Your task to perform on an android device: Open Google Chrome Image 0: 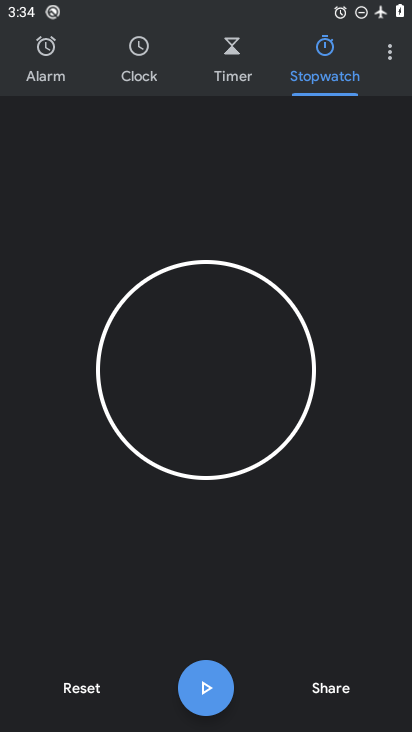
Step 0: press home button
Your task to perform on an android device: Open Google Chrome Image 1: 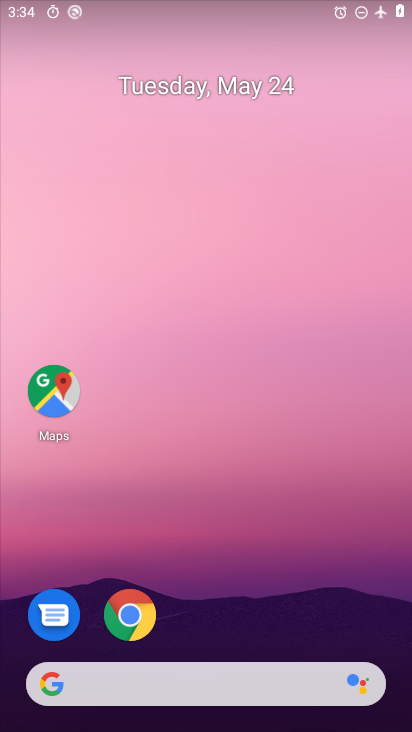
Step 1: click (146, 619)
Your task to perform on an android device: Open Google Chrome Image 2: 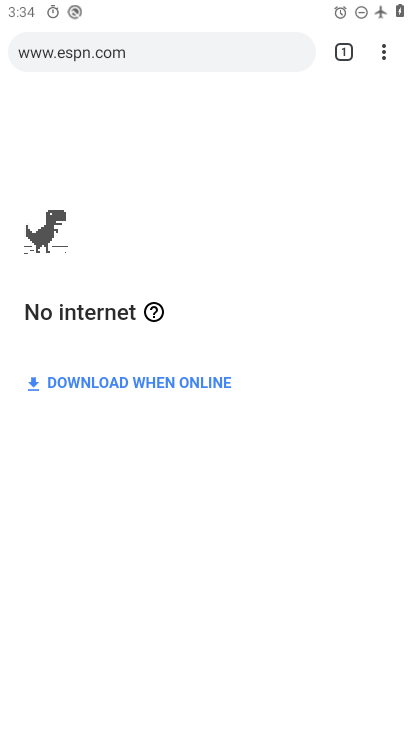
Step 2: task complete